Your task to perform on an android device: When is my next meeting? Image 0: 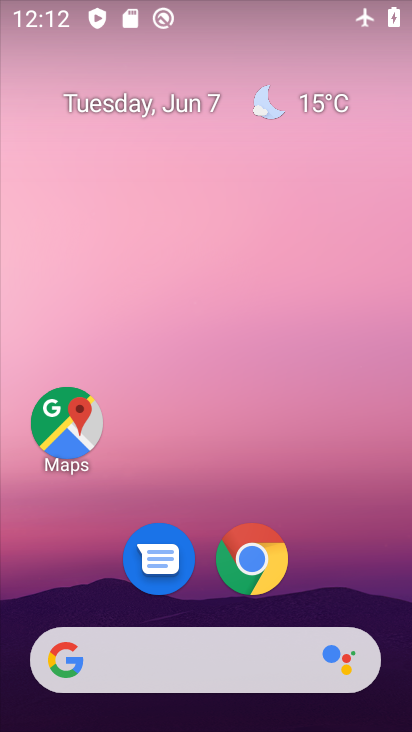
Step 0: drag from (385, 609) to (380, 466)
Your task to perform on an android device: When is my next meeting? Image 1: 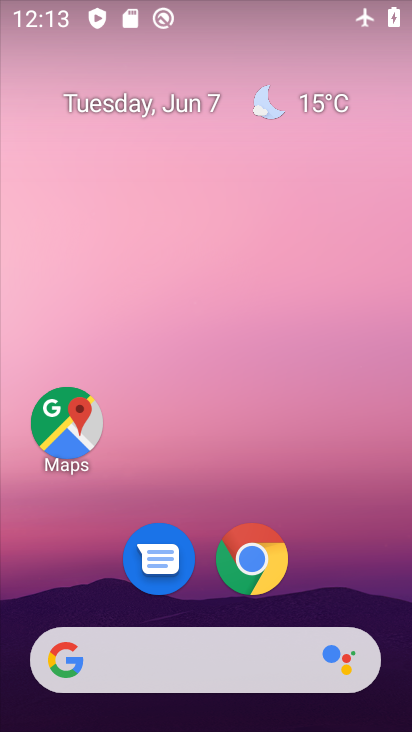
Step 1: drag from (379, 560) to (358, 164)
Your task to perform on an android device: When is my next meeting? Image 2: 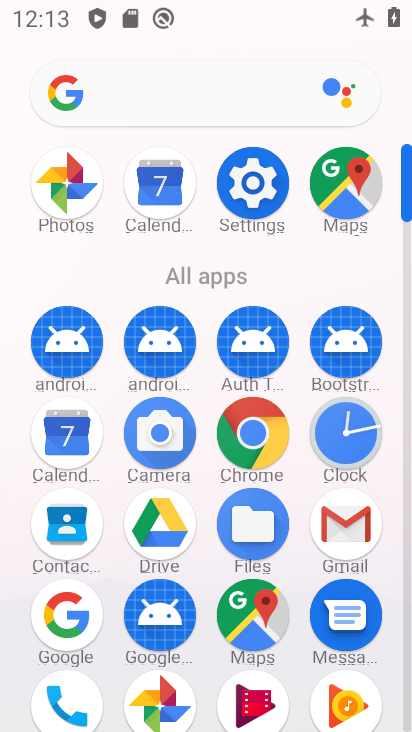
Step 2: click (66, 438)
Your task to perform on an android device: When is my next meeting? Image 3: 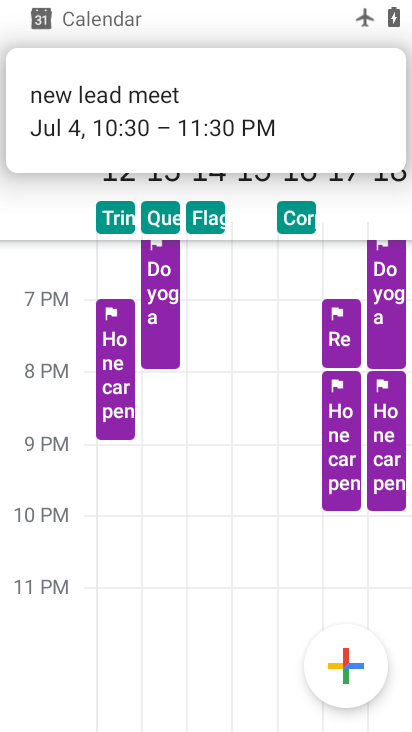
Step 3: drag from (50, 195) to (65, 357)
Your task to perform on an android device: When is my next meeting? Image 4: 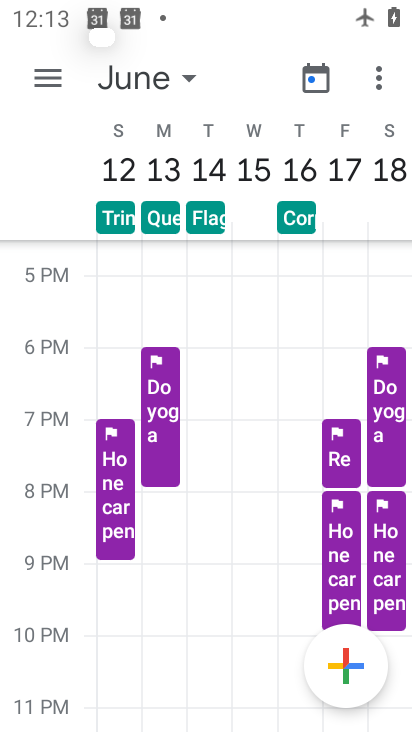
Step 4: drag from (78, 257) to (112, 564)
Your task to perform on an android device: When is my next meeting? Image 5: 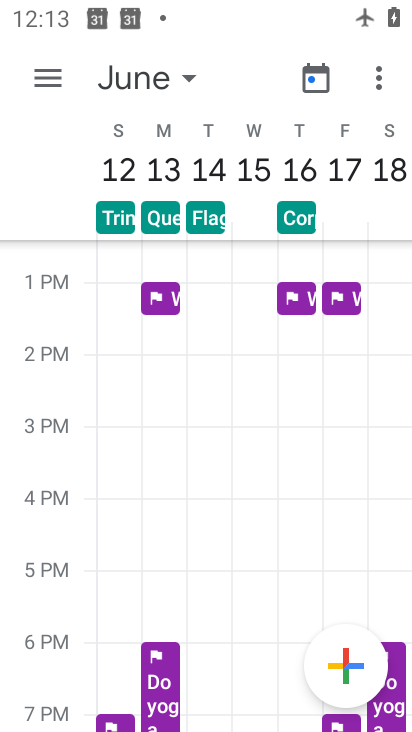
Step 5: click (48, 71)
Your task to perform on an android device: When is my next meeting? Image 6: 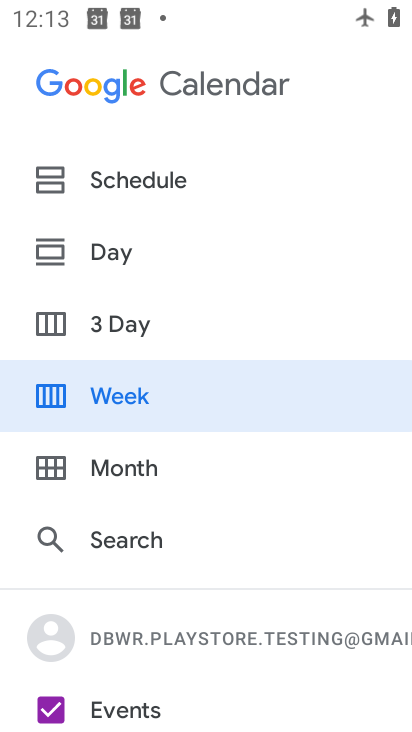
Step 6: click (154, 164)
Your task to perform on an android device: When is my next meeting? Image 7: 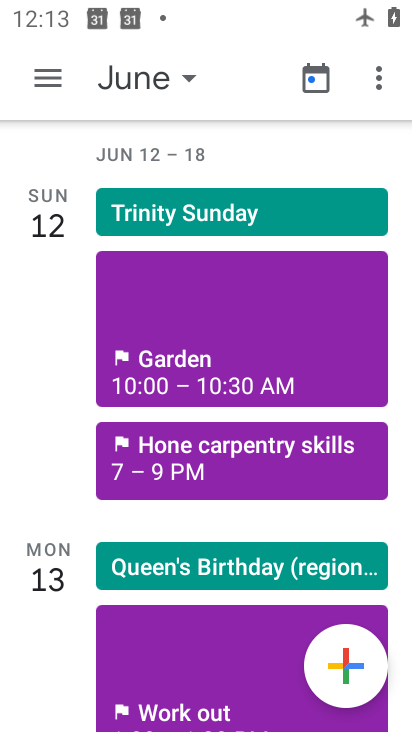
Step 7: task complete